Your task to perform on an android device: turn on javascript in the chrome app Image 0: 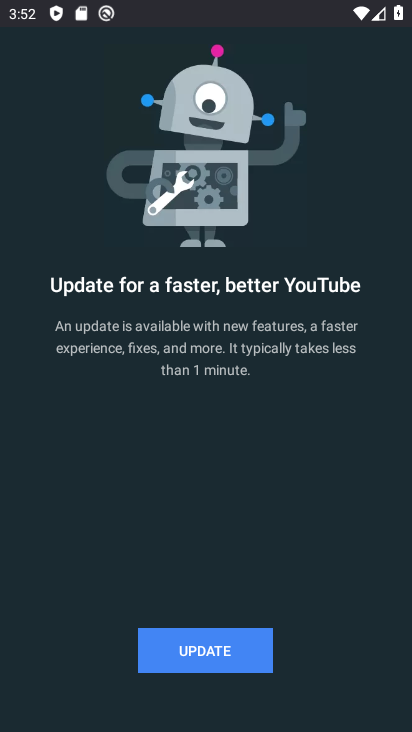
Step 0: press back button
Your task to perform on an android device: turn on javascript in the chrome app Image 1: 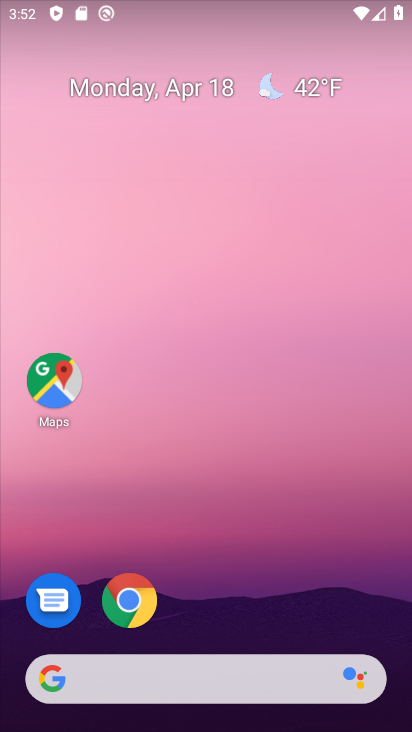
Step 1: click (136, 611)
Your task to perform on an android device: turn on javascript in the chrome app Image 2: 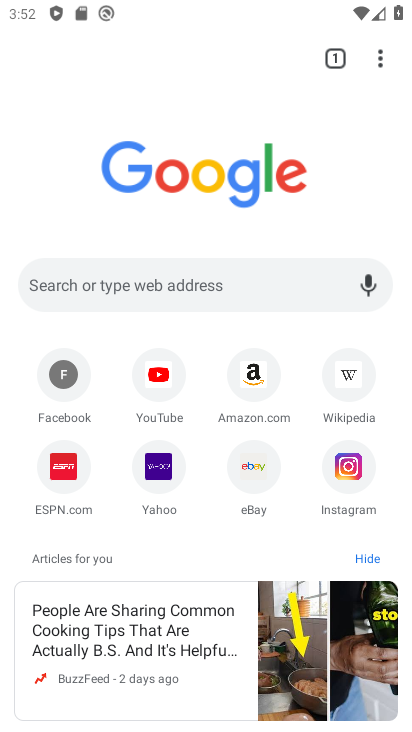
Step 2: click (387, 60)
Your task to perform on an android device: turn on javascript in the chrome app Image 3: 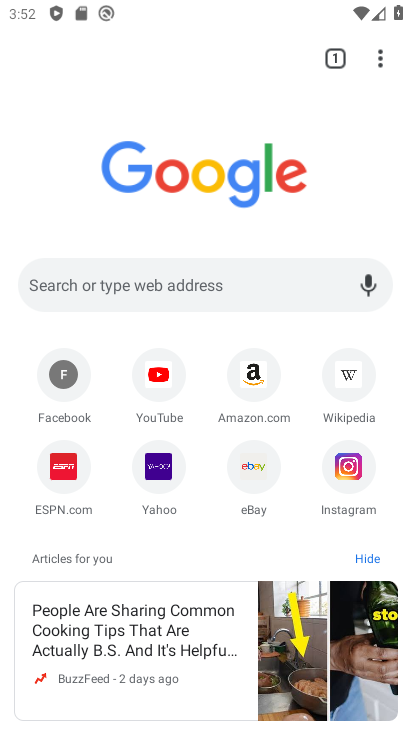
Step 3: drag from (383, 62) to (241, 485)
Your task to perform on an android device: turn on javascript in the chrome app Image 4: 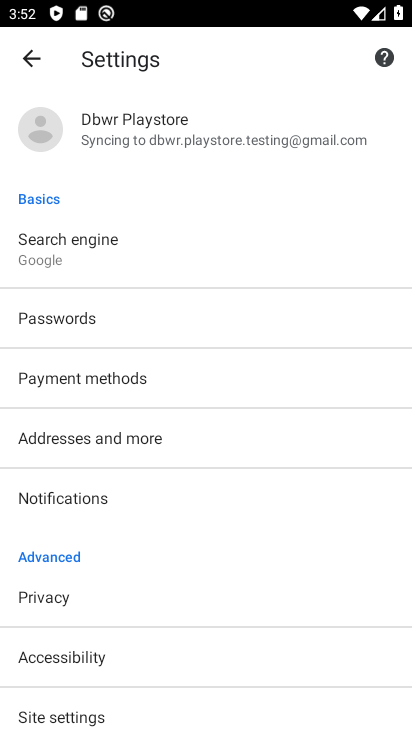
Step 4: drag from (164, 547) to (250, 291)
Your task to perform on an android device: turn on javascript in the chrome app Image 5: 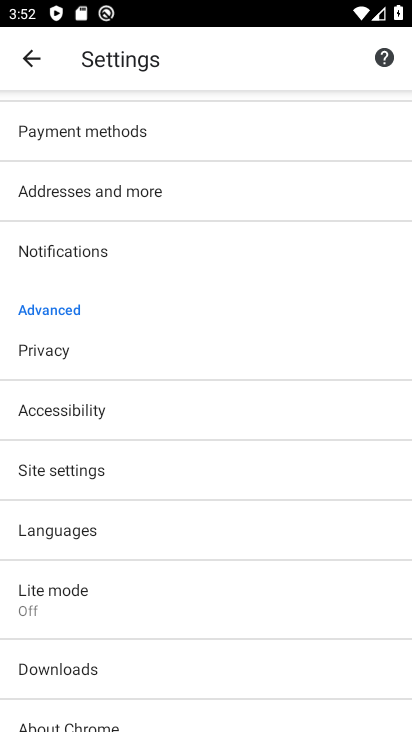
Step 5: click (141, 480)
Your task to perform on an android device: turn on javascript in the chrome app Image 6: 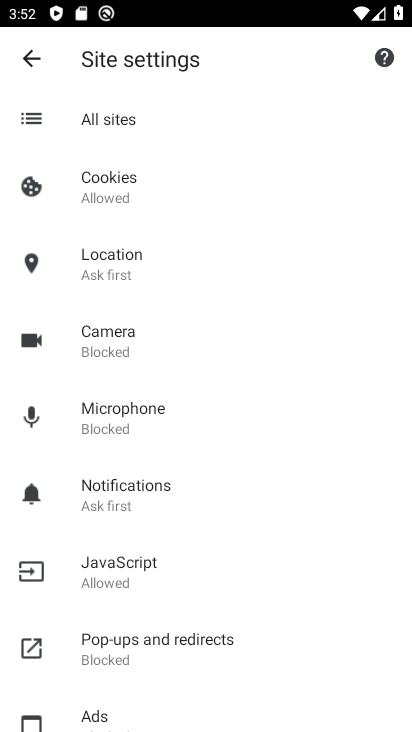
Step 6: click (155, 579)
Your task to perform on an android device: turn on javascript in the chrome app Image 7: 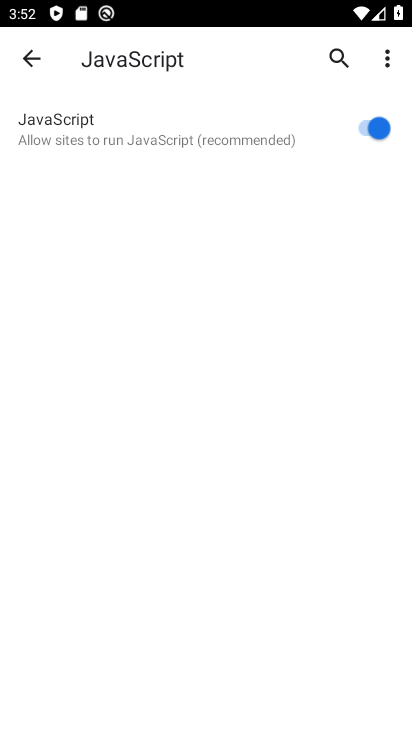
Step 7: task complete